Your task to perform on an android device: move an email to a new category in the gmail app Image 0: 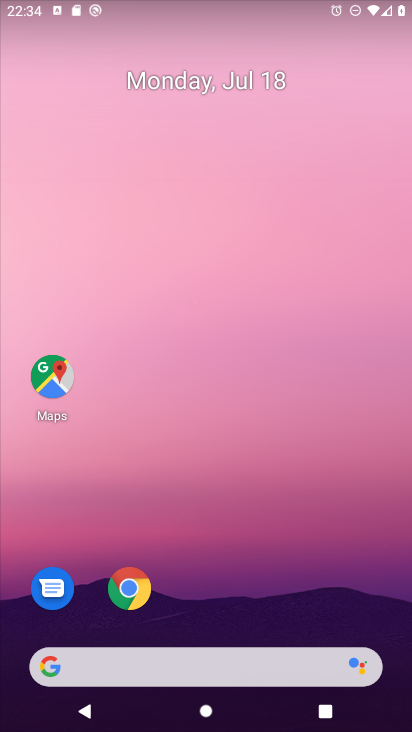
Step 0: drag from (372, 604) to (291, 103)
Your task to perform on an android device: move an email to a new category in the gmail app Image 1: 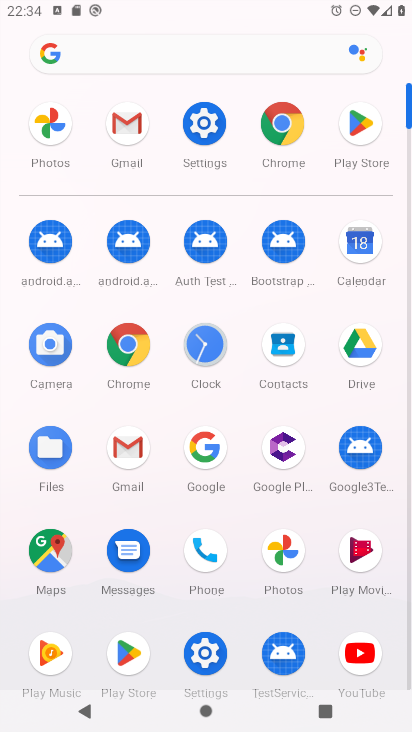
Step 1: click (127, 445)
Your task to perform on an android device: move an email to a new category in the gmail app Image 2: 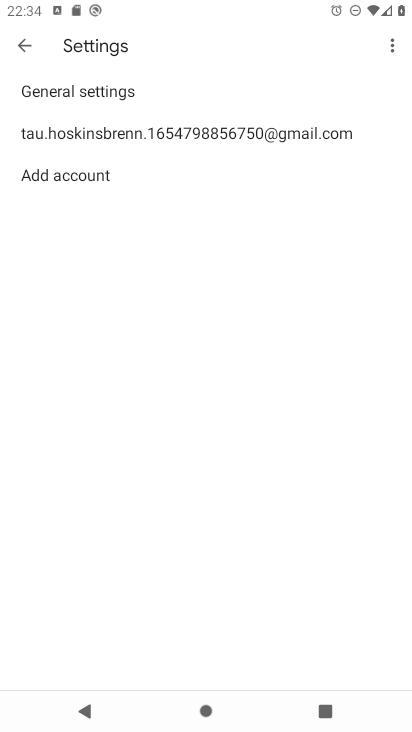
Step 2: press back button
Your task to perform on an android device: move an email to a new category in the gmail app Image 3: 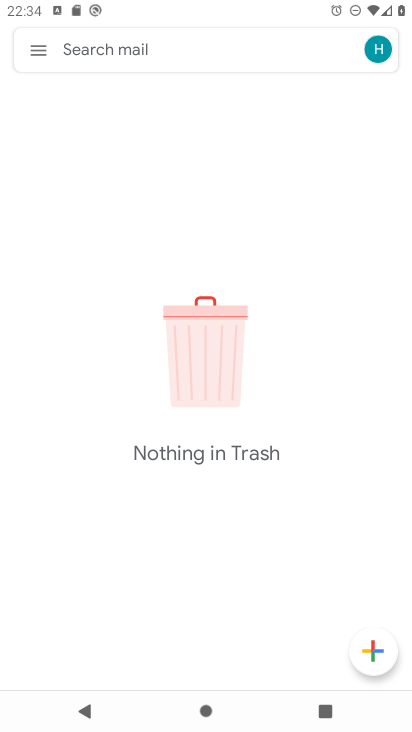
Step 3: click (39, 47)
Your task to perform on an android device: move an email to a new category in the gmail app Image 4: 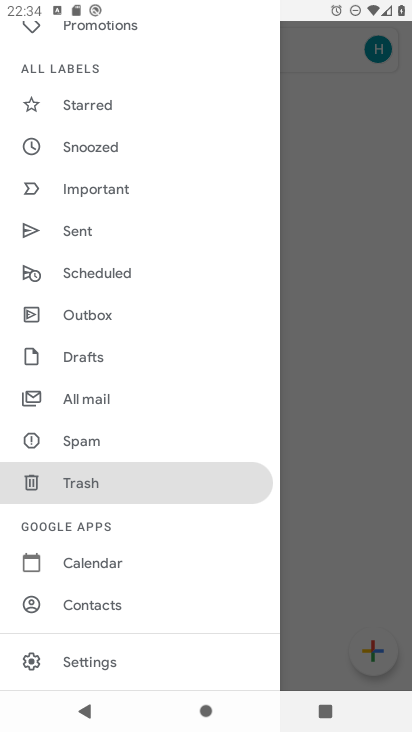
Step 4: click (92, 399)
Your task to perform on an android device: move an email to a new category in the gmail app Image 5: 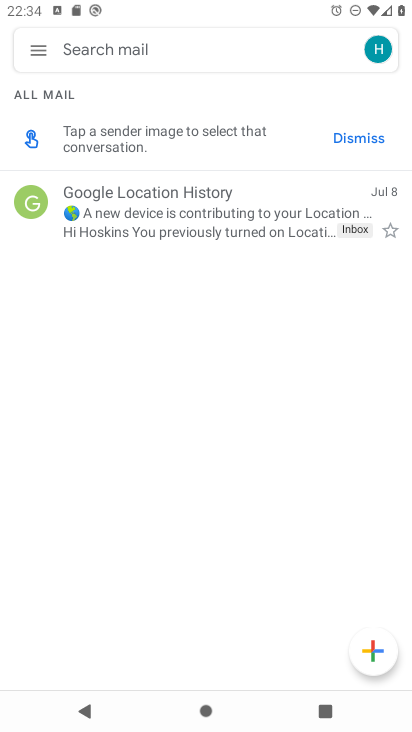
Step 5: click (280, 223)
Your task to perform on an android device: move an email to a new category in the gmail app Image 6: 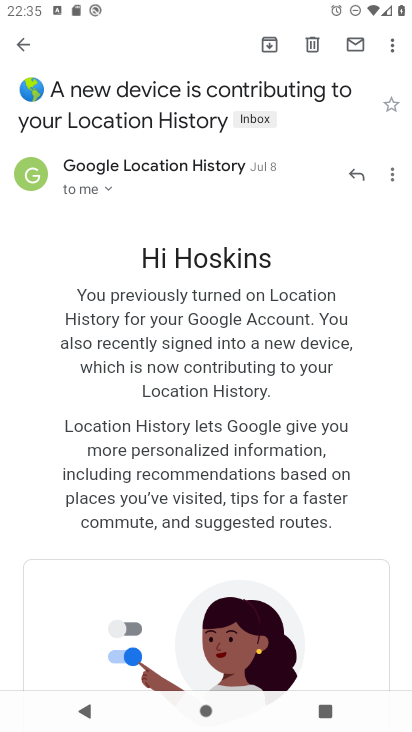
Step 6: click (391, 53)
Your task to perform on an android device: move an email to a new category in the gmail app Image 7: 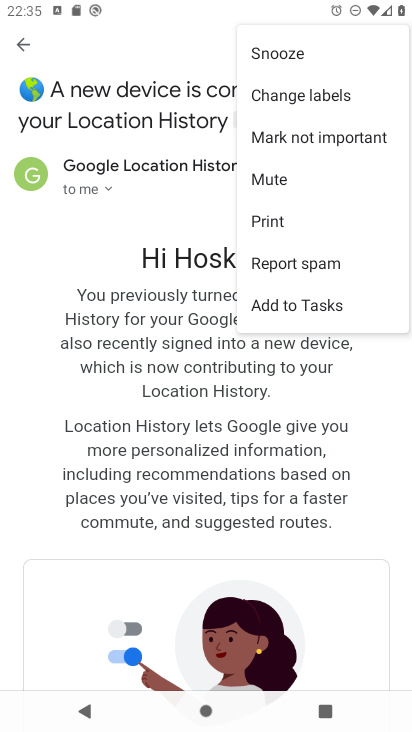
Step 7: click (280, 94)
Your task to perform on an android device: move an email to a new category in the gmail app Image 8: 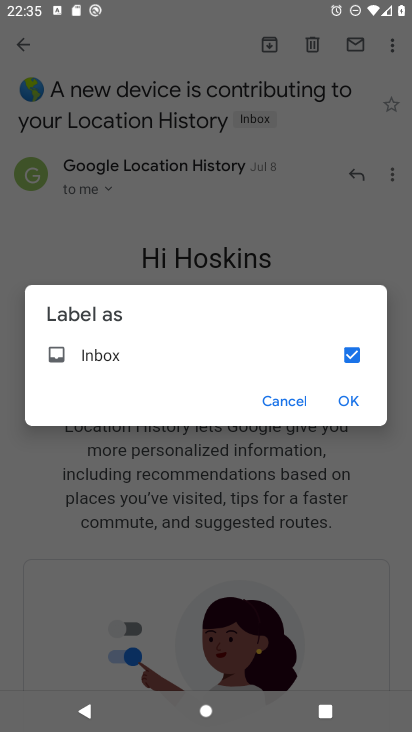
Step 8: click (350, 397)
Your task to perform on an android device: move an email to a new category in the gmail app Image 9: 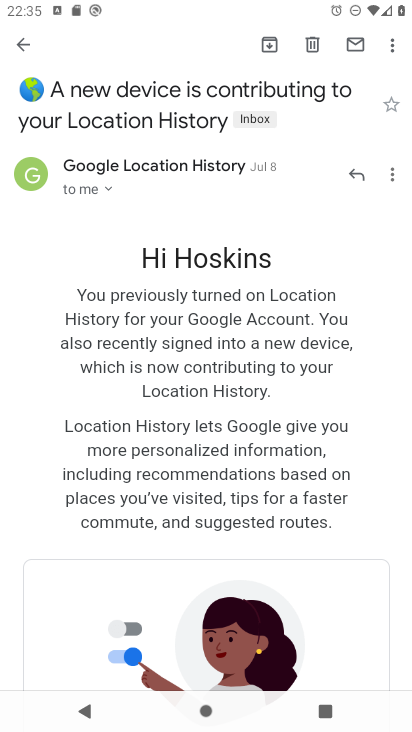
Step 9: task complete